Your task to perform on an android device: Set the phone to "Do not disturb". Image 0: 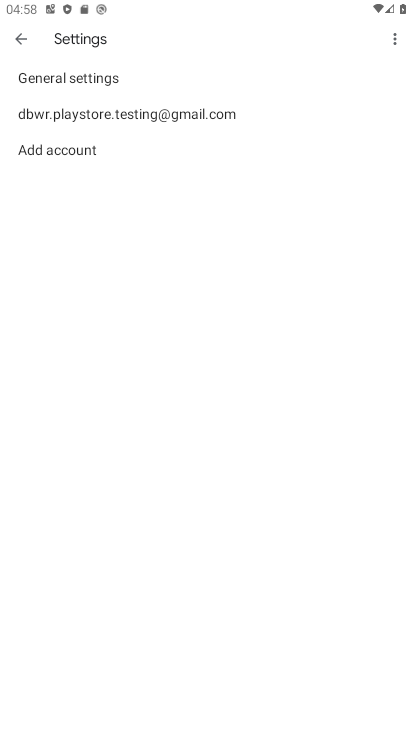
Step 0: press home button
Your task to perform on an android device: Set the phone to "Do not disturb". Image 1: 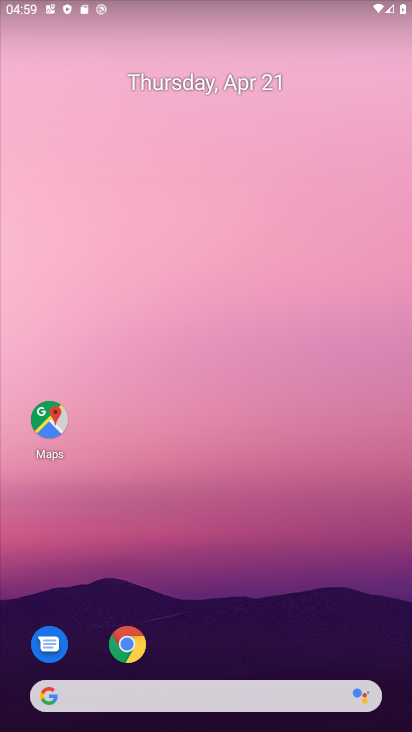
Step 1: drag from (236, 1) to (267, 449)
Your task to perform on an android device: Set the phone to "Do not disturb". Image 2: 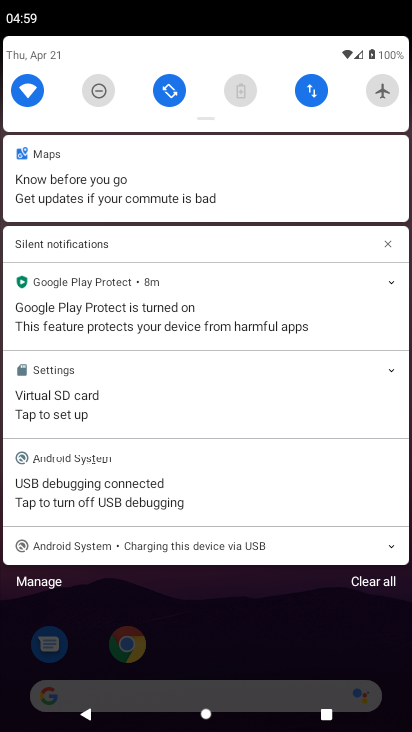
Step 2: click (98, 83)
Your task to perform on an android device: Set the phone to "Do not disturb". Image 3: 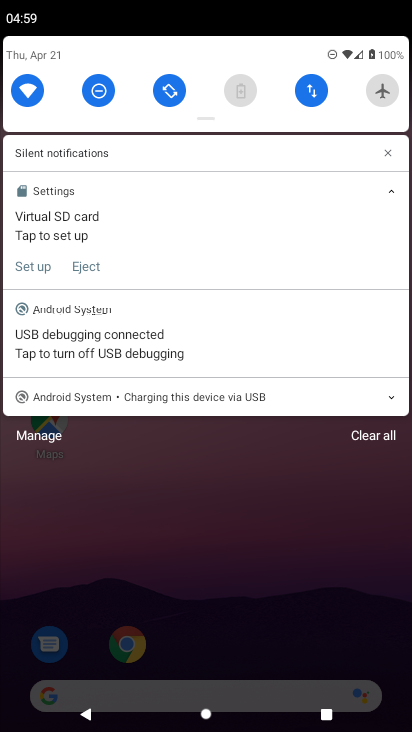
Step 3: task complete